Your task to perform on an android device: move a message to another label in the gmail app Image 0: 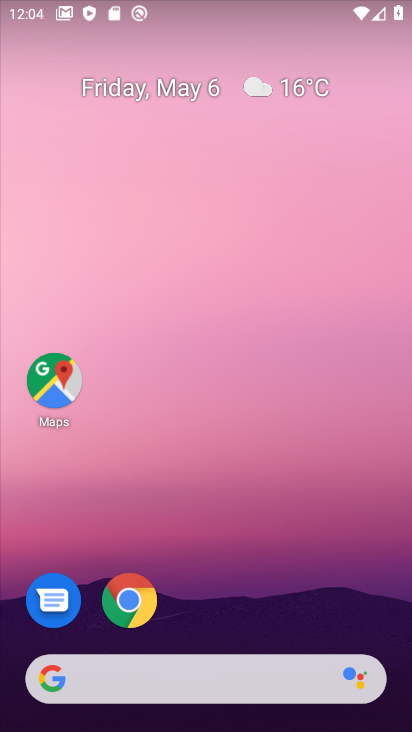
Step 0: drag from (205, 251) to (222, 110)
Your task to perform on an android device: move a message to another label in the gmail app Image 1: 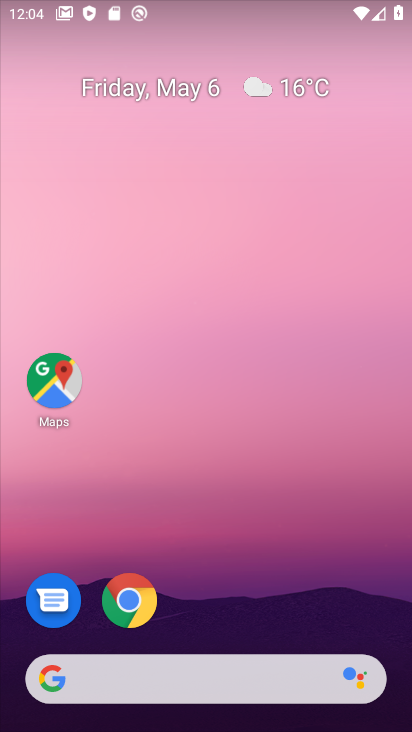
Step 1: drag from (218, 559) to (276, 32)
Your task to perform on an android device: move a message to another label in the gmail app Image 2: 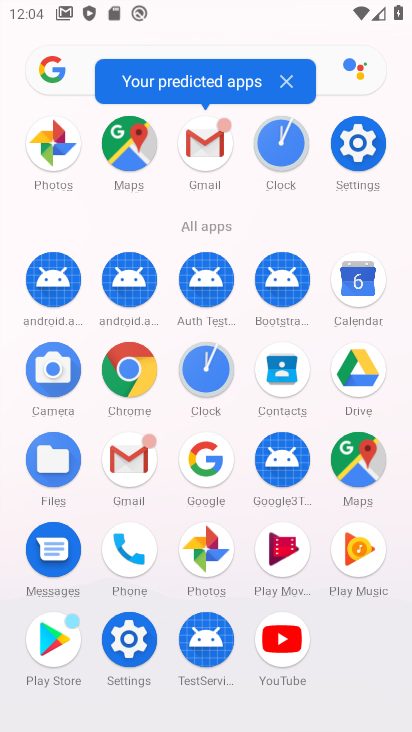
Step 2: click (208, 144)
Your task to perform on an android device: move a message to another label in the gmail app Image 3: 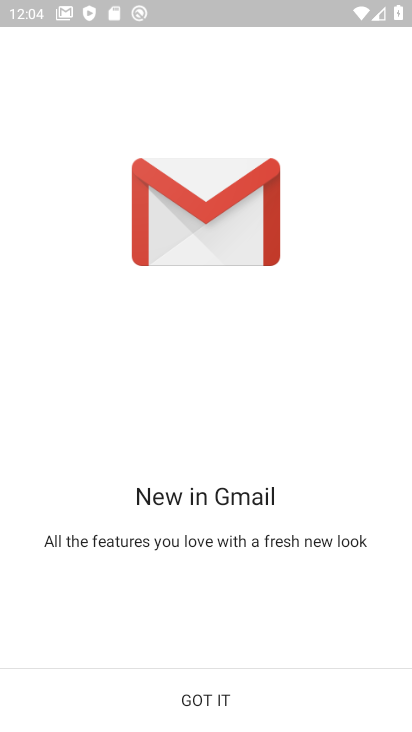
Step 3: click (194, 690)
Your task to perform on an android device: move a message to another label in the gmail app Image 4: 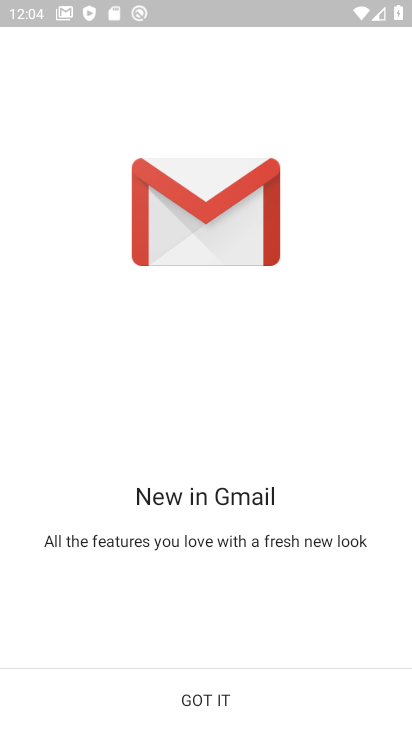
Step 4: click (194, 690)
Your task to perform on an android device: move a message to another label in the gmail app Image 5: 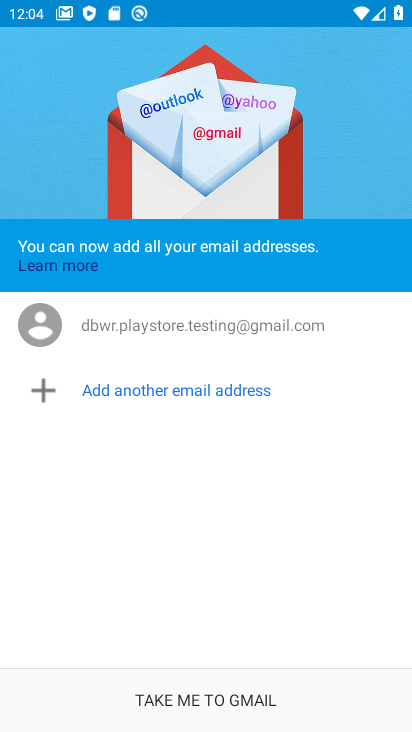
Step 5: click (194, 690)
Your task to perform on an android device: move a message to another label in the gmail app Image 6: 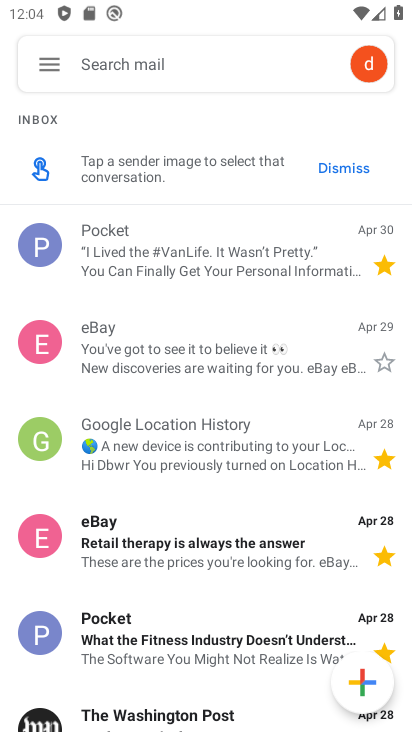
Step 6: click (166, 249)
Your task to perform on an android device: move a message to another label in the gmail app Image 7: 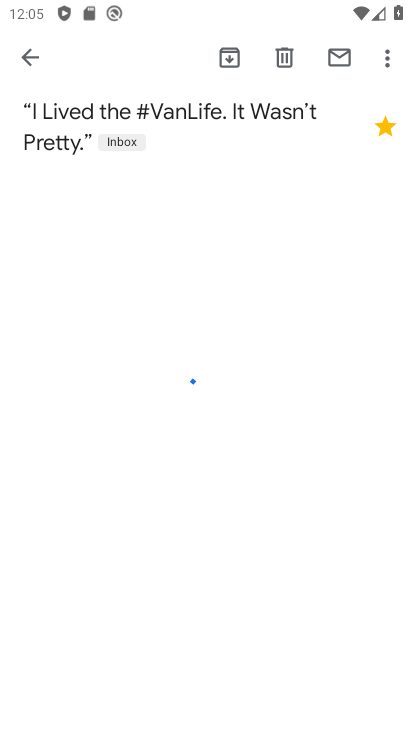
Step 7: click (382, 54)
Your task to perform on an android device: move a message to another label in the gmail app Image 8: 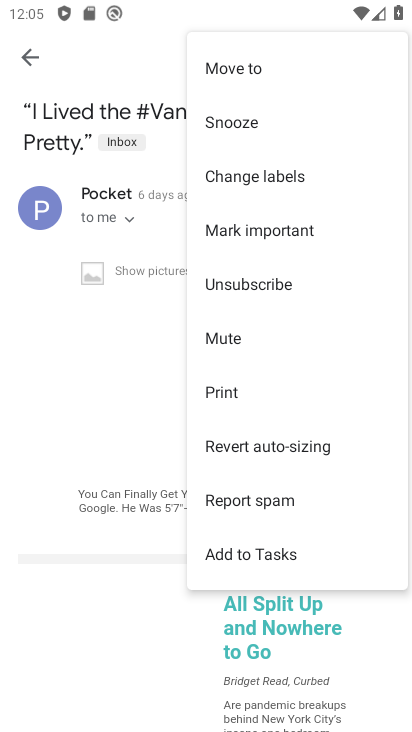
Step 8: click (252, 177)
Your task to perform on an android device: move a message to another label in the gmail app Image 9: 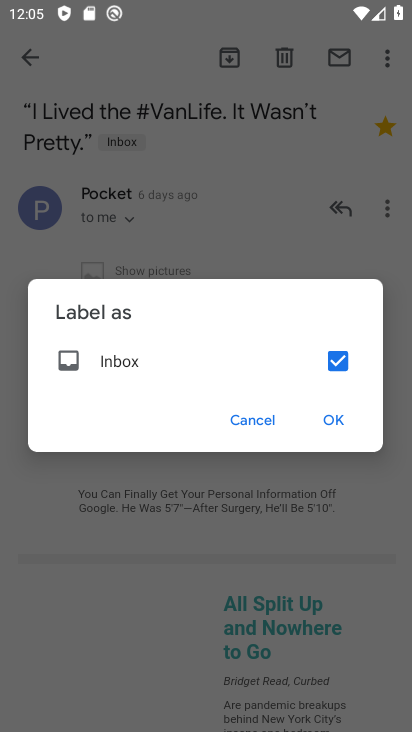
Step 9: click (336, 366)
Your task to perform on an android device: move a message to another label in the gmail app Image 10: 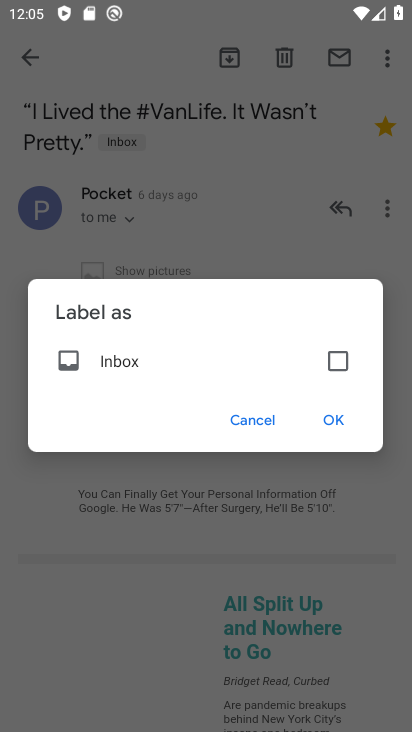
Step 10: click (337, 421)
Your task to perform on an android device: move a message to another label in the gmail app Image 11: 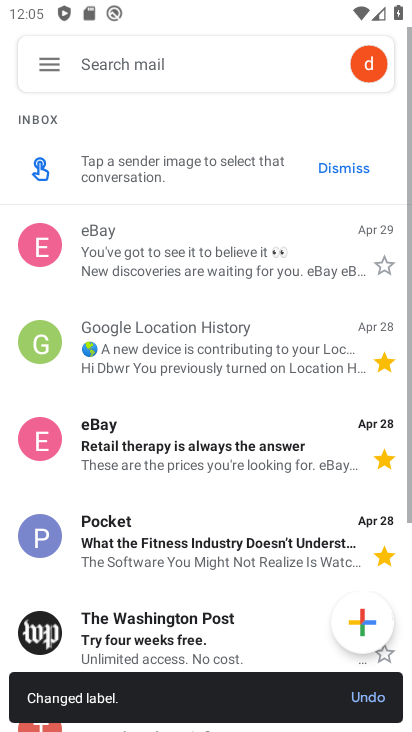
Step 11: task complete